Your task to perform on an android device: turn off improve location accuracy Image 0: 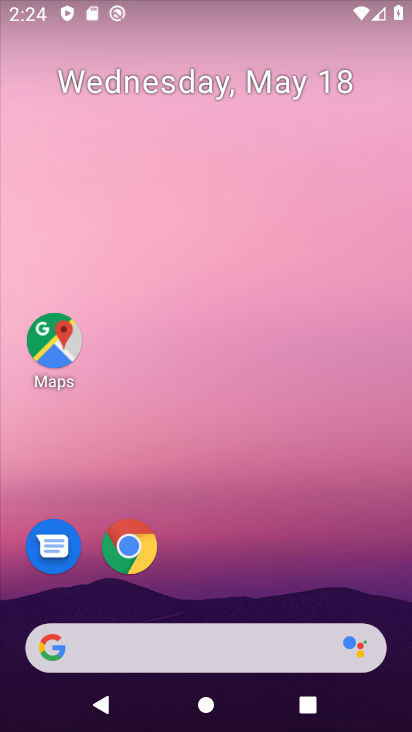
Step 0: drag from (237, 716) to (237, 151)
Your task to perform on an android device: turn off improve location accuracy Image 1: 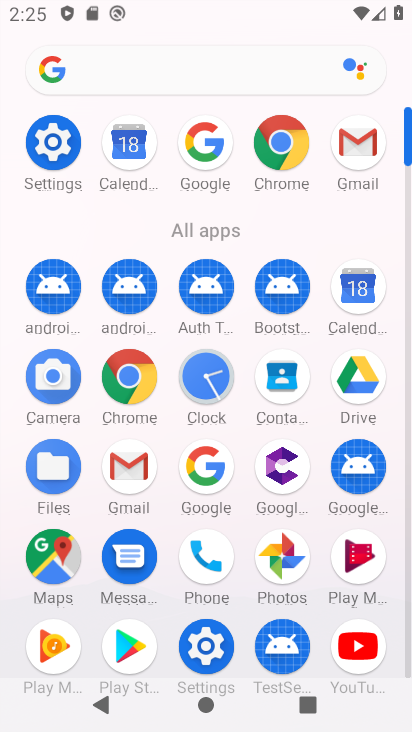
Step 1: click (50, 142)
Your task to perform on an android device: turn off improve location accuracy Image 2: 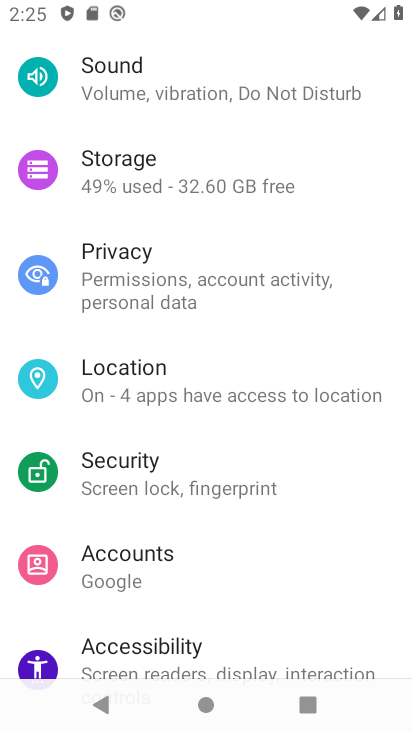
Step 2: click (120, 368)
Your task to perform on an android device: turn off improve location accuracy Image 3: 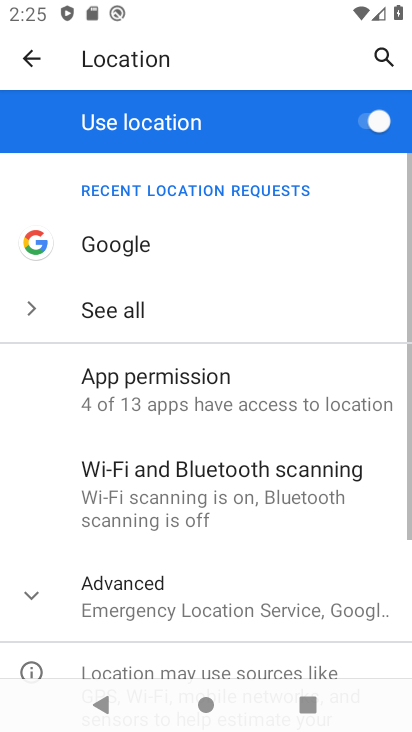
Step 3: click (127, 595)
Your task to perform on an android device: turn off improve location accuracy Image 4: 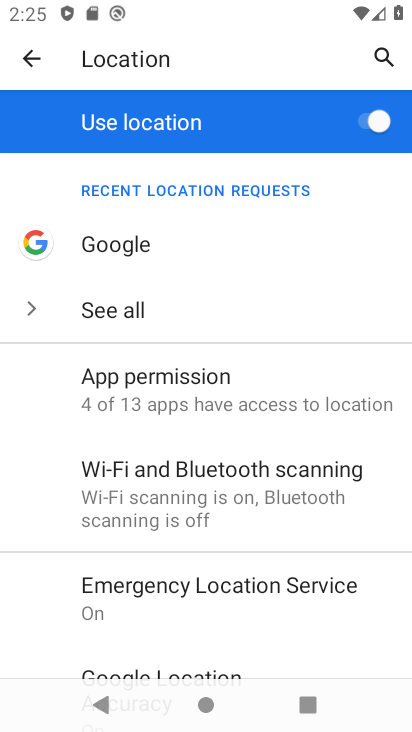
Step 4: drag from (161, 636) to (193, 213)
Your task to perform on an android device: turn off improve location accuracy Image 5: 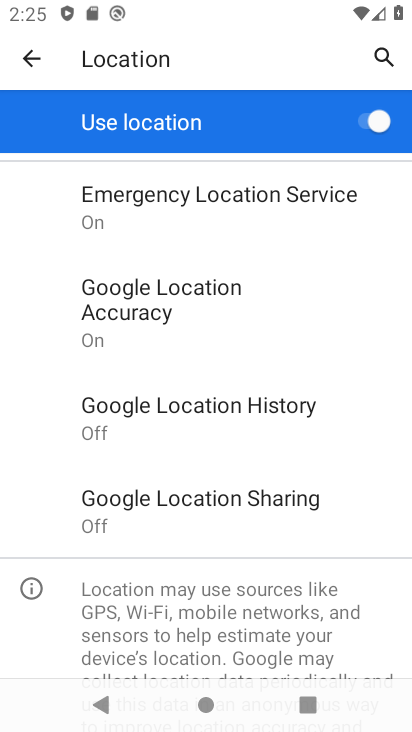
Step 5: click (151, 298)
Your task to perform on an android device: turn off improve location accuracy Image 6: 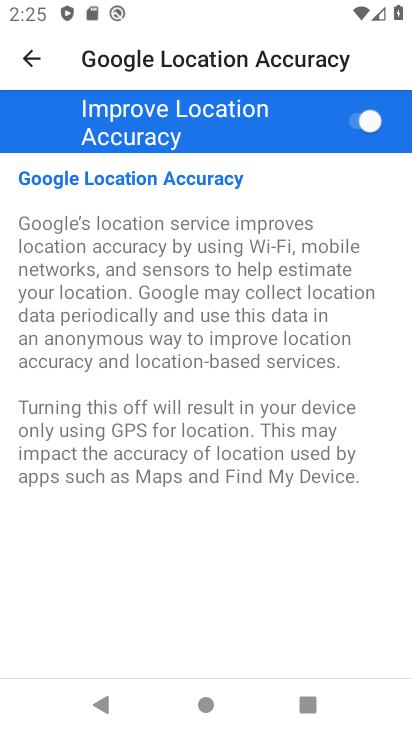
Step 6: click (362, 123)
Your task to perform on an android device: turn off improve location accuracy Image 7: 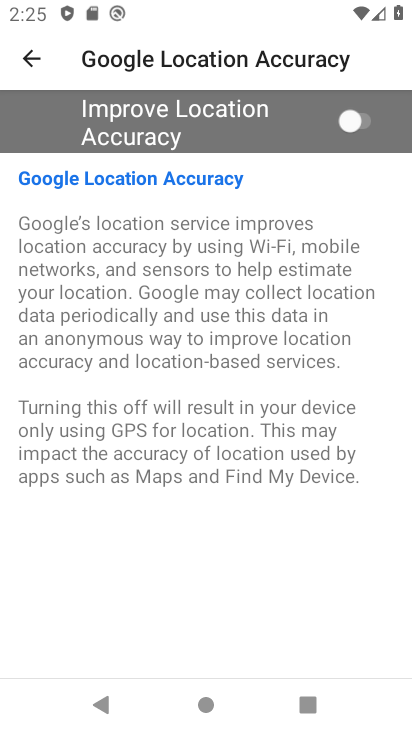
Step 7: task complete